Your task to perform on an android device: Go to eBay Image 0: 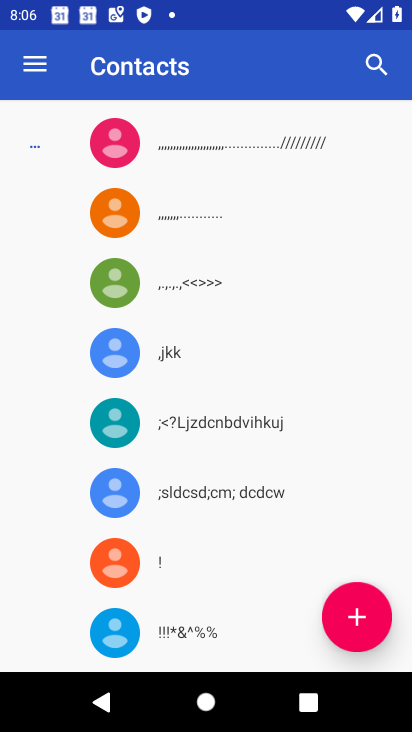
Step 0: press home button
Your task to perform on an android device: Go to eBay Image 1: 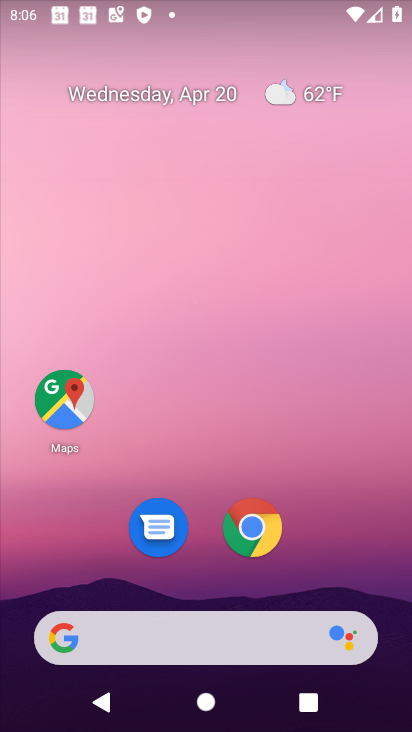
Step 1: drag from (241, 620) to (251, 247)
Your task to perform on an android device: Go to eBay Image 2: 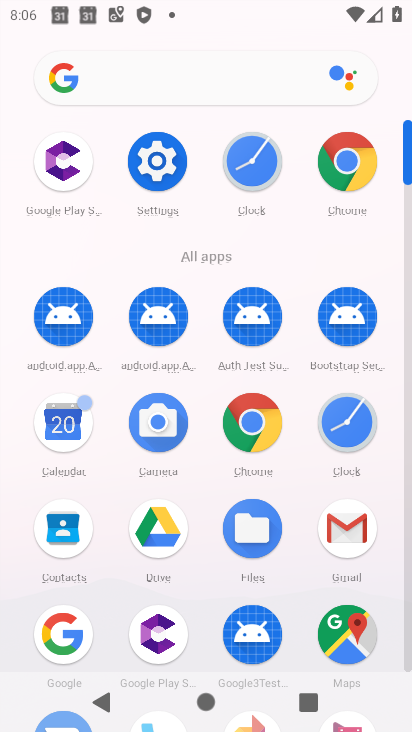
Step 2: click (249, 424)
Your task to perform on an android device: Go to eBay Image 3: 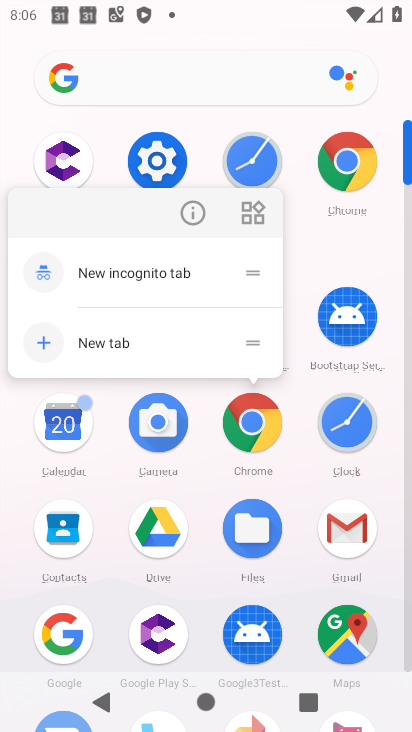
Step 3: click (249, 424)
Your task to perform on an android device: Go to eBay Image 4: 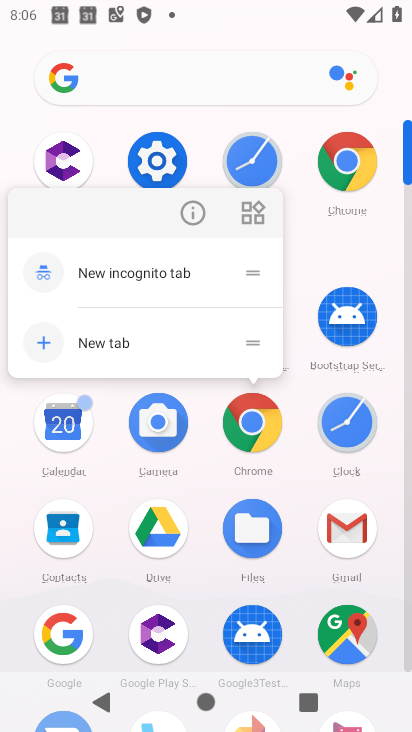
Step 4: click (255, 429)
Your task to perform on an android device: Go to eBay Image 5: 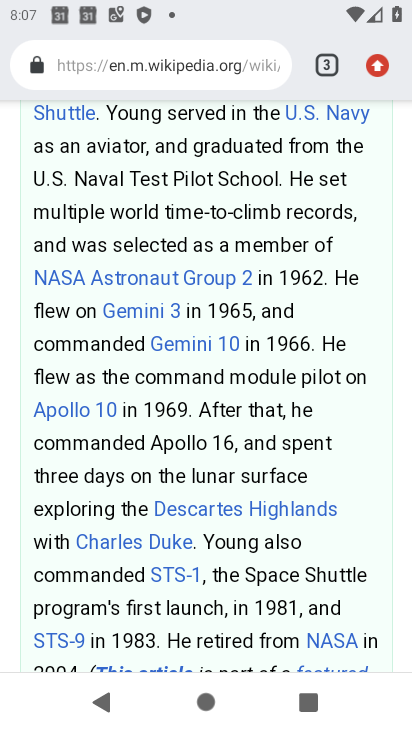
Step 5: click (330, 64)
Your task to perform on an android device: Go to eBay Image 6: 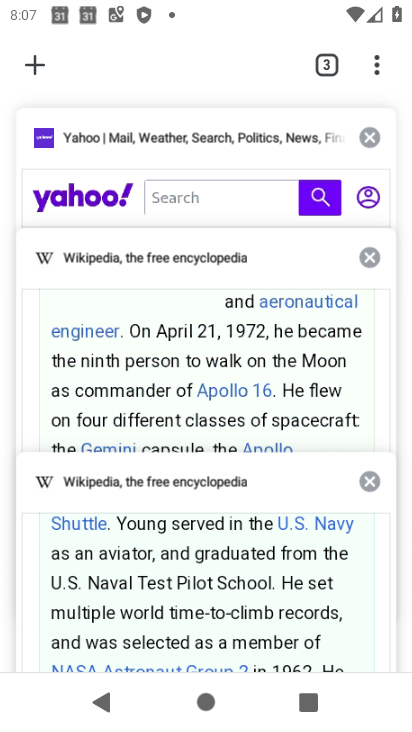
Step 6: click (381, 136)
Your task to perform on an android device: Go to eBay Image 7: 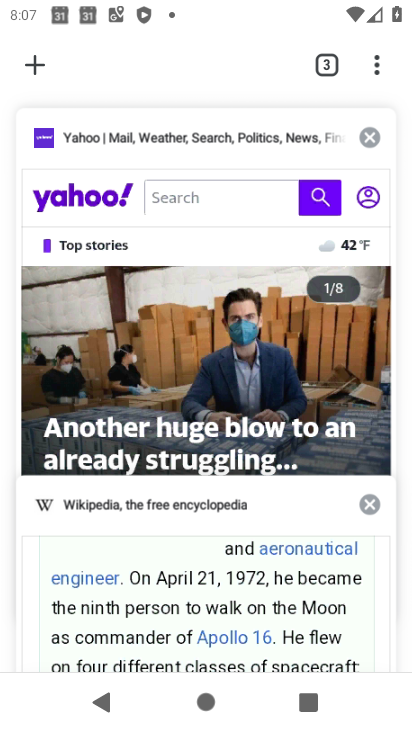
Step 7: click (369, 136)
Your task to perform on an android device: Go to eBay Image 8: 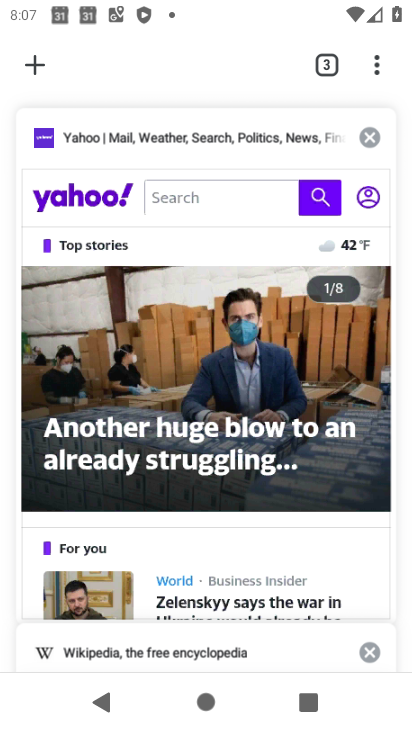
Step 8: click (369, 136)
Your task to perform on an android device: Go to eBay Image 9: 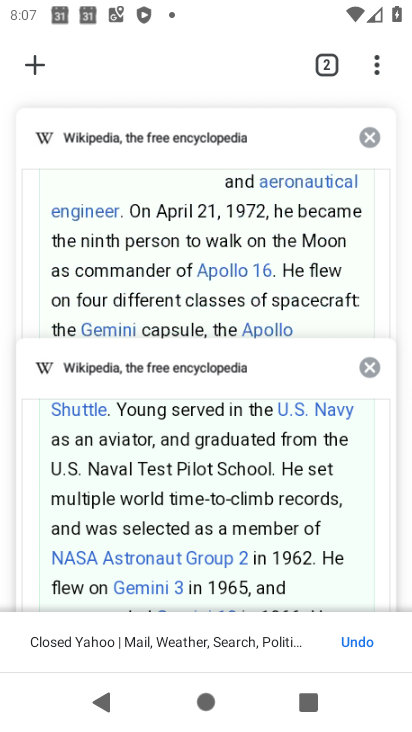
Step 9: click (369, 136)
Your task to perform on an android device: Go to eBay Image 10: 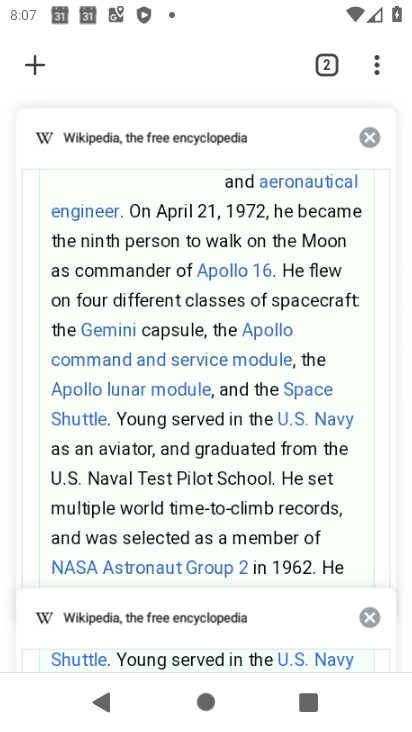
Step 10: click (369, 136)
Your task to perform on an android device: Go to eBay Image 11: 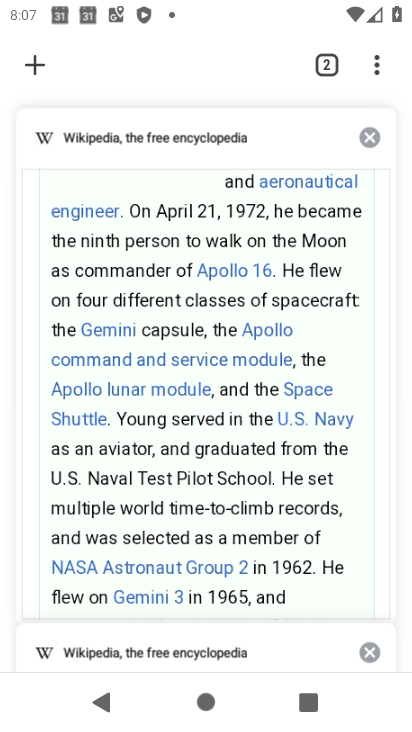
Step 11: click (369, 141)
Your task to perform on an android device: Go to eBay Image 12: 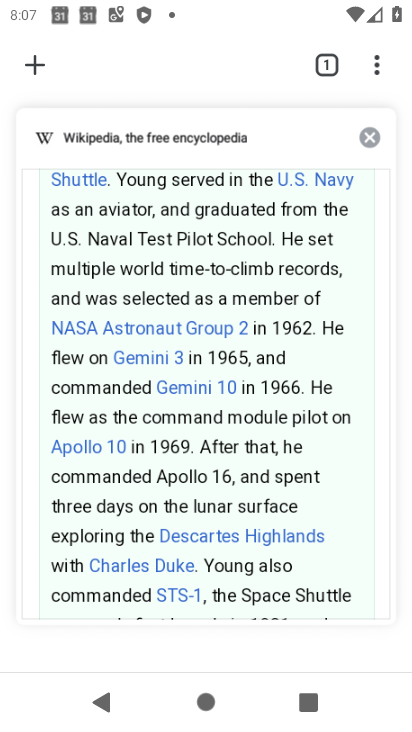
Step 12: click (366, 140)
Your task to perform on an android device: Go to eBay Image 13: 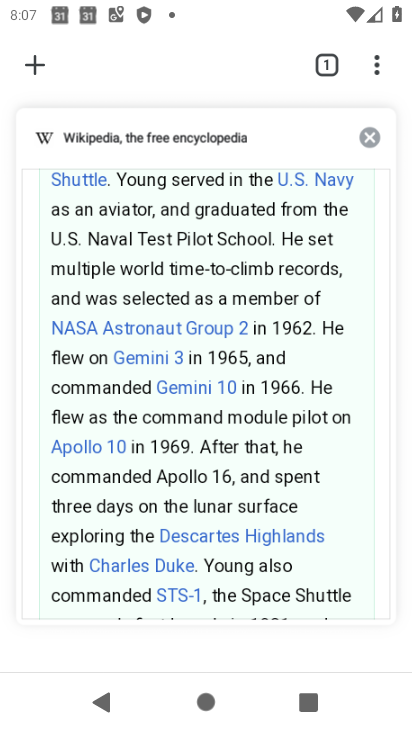
Step 13: click (367, 140)
Your task to perform on an android device: Go to eBay Image 14: 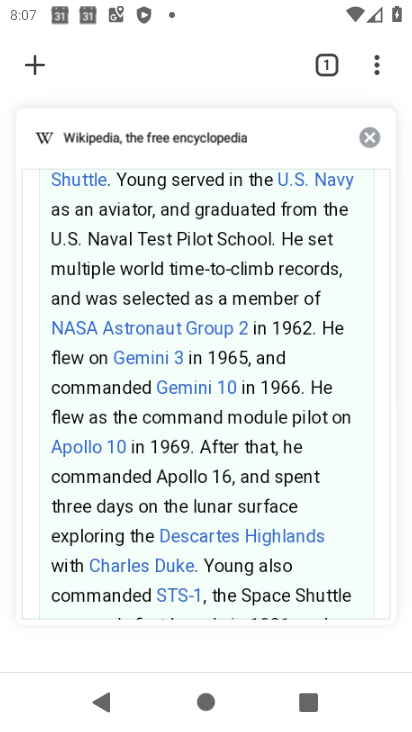
Step 14: click (43, 65)
Your task to perform on an android device: Go to eBay Image 15: 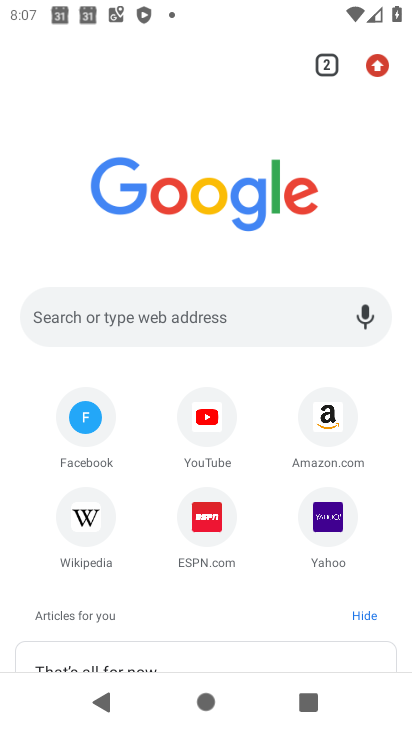
Step 15: click (184, 321)
Your task to perform on an android device: Go to eBay Image 16: 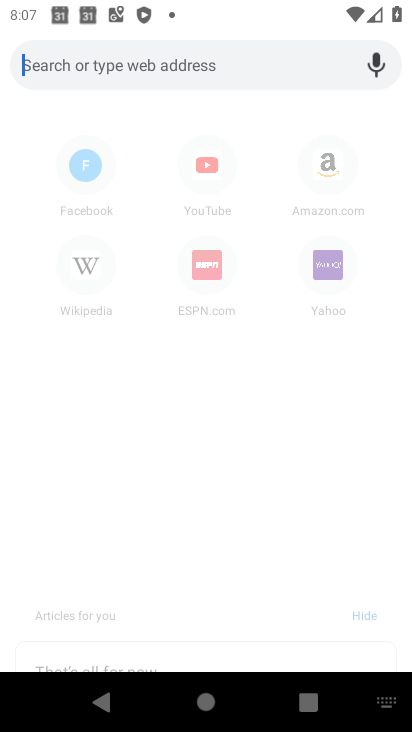
Step 16: type "ebay"
Your task to perform on an android device: Go to eBay Image 17: 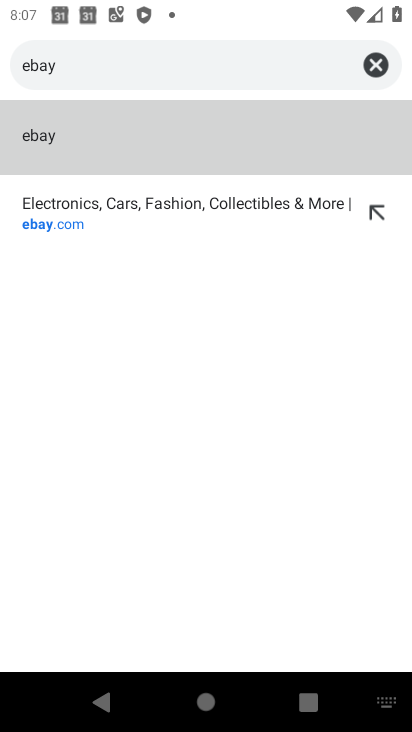
Step 17: click (90, 220)
Your task to perform on an android device: Go to eBay Image 18: 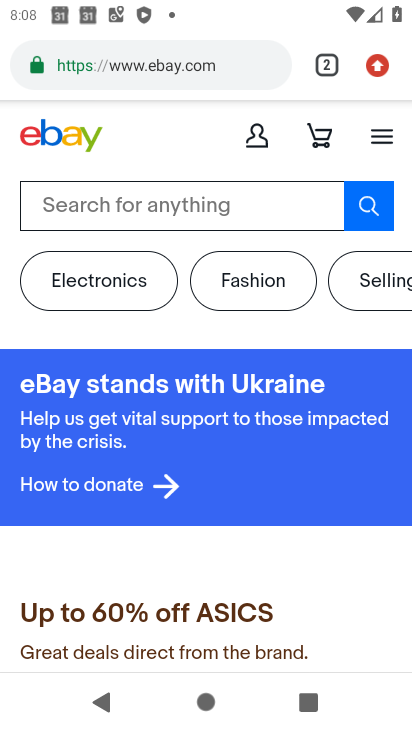
Step 18: task complete